Your task to perform on an android device: turn on data saver in the chrome app Image 0: 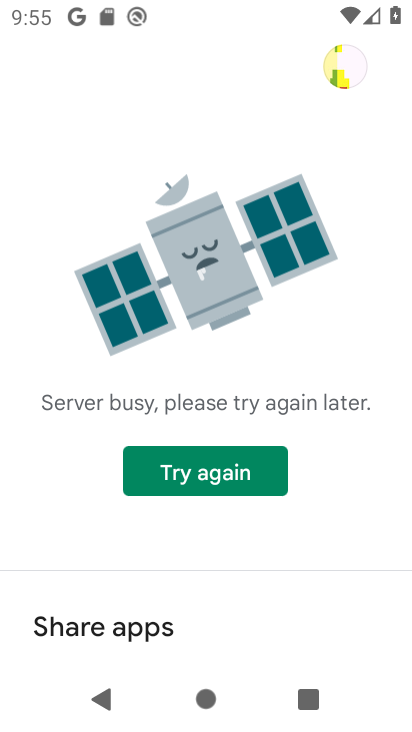
Step 0: press home button
Your task to perform on an android device: turn on data saver in the chrome app Image 1: 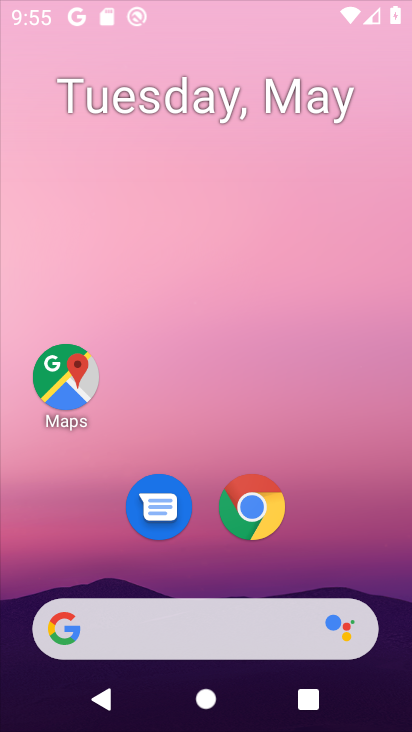
Step 1: press home button
Your task to perform on an android device: turn on data saver in the chrome app Image 2: 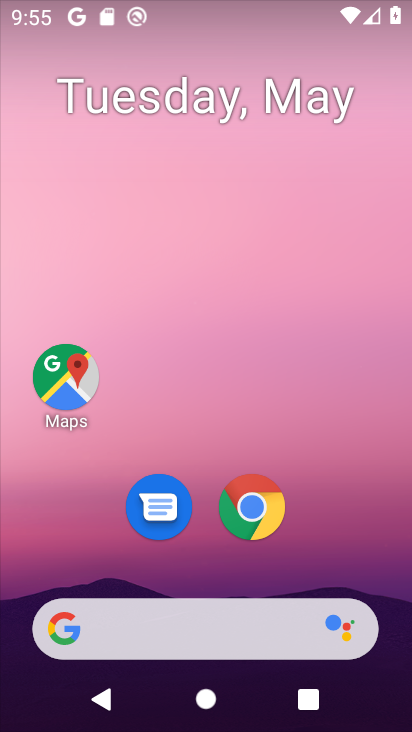
Step 2: click (264, 519)
Your task to perform on an android device: turn on data saver in the chrome app Image 3: 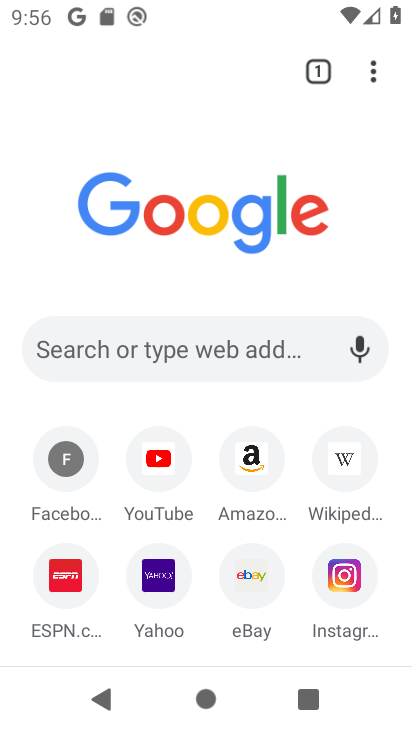
Step 3: click (374, 64)
Your task to perform on an android device: turn on data saver in the chrome app Image 4: 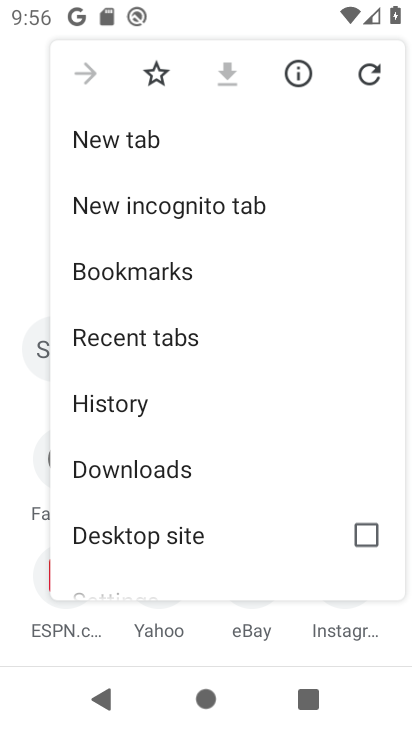
Step 4: drag from (182, 520) to (221, 64)
Your task to perform on an android device: turn on data saver in the chrome app Image 5: 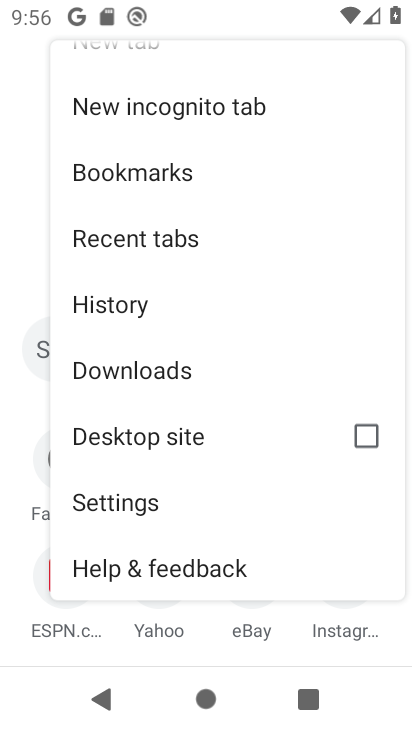
Step 5: click (129, 511)
Your task to perform on an android device: turn on data saver in the chrome app Image 6: 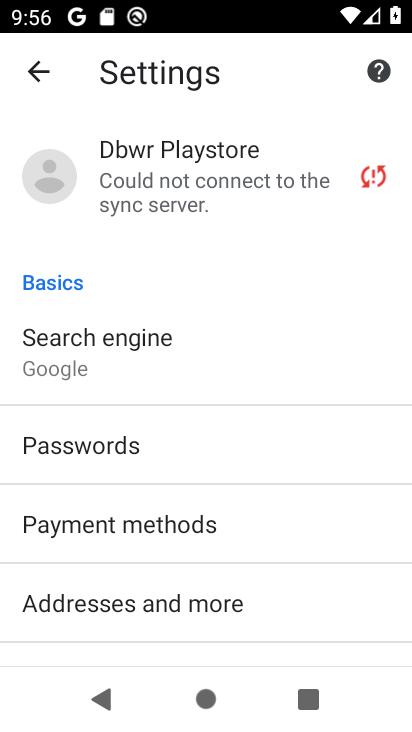
Step 6: drag from (277, 633) to (93, 22)
Your task to perform on an android device: turn on data saver in the chrome app Image 7: 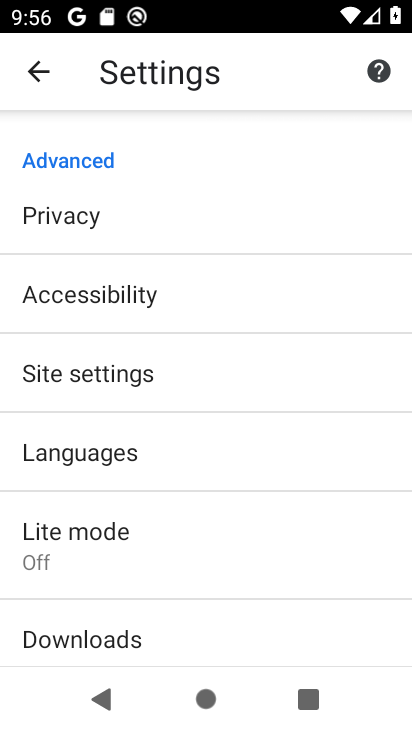
Step 7: click (123, 595)
Your task to perform on an android device: turn on data saver in the chrome app Image 8: 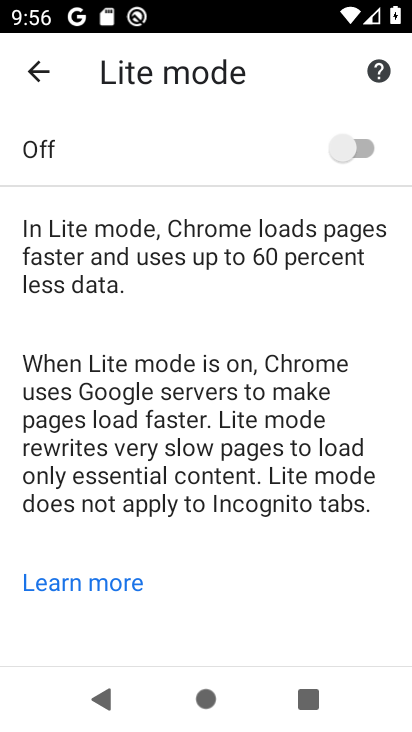
Step 8: click (40, 79)
Your task to perform on an android device: turn on data saver in the chrome app Image 9: 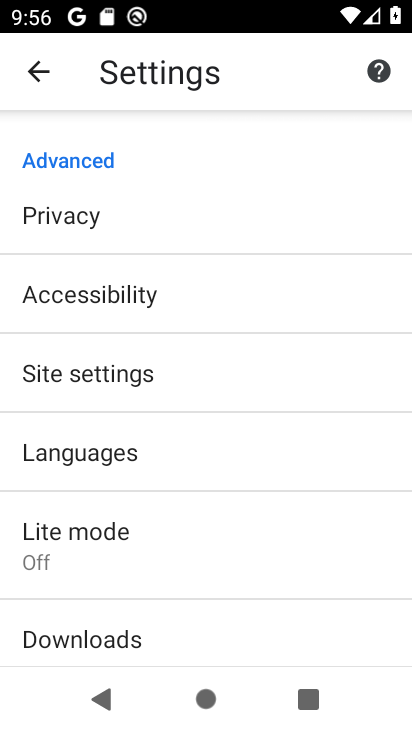
Step 9: click (106, 558)
Your task to perform on an android device: turn on data saver in the chrome app Image 10: 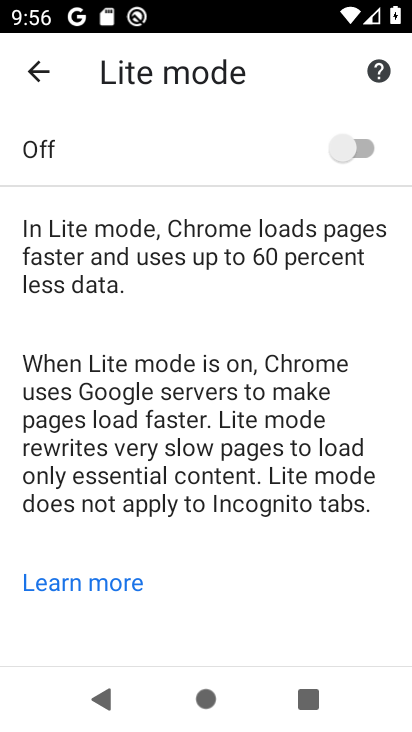
Step 10: click (347, 156)
Your task to perform on an android device: turn on data saver in the chrome app Image 11: 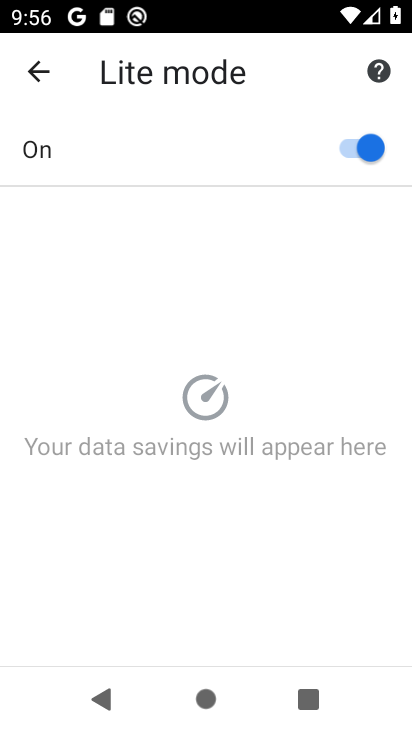
Step 11: task complete